Your task to perform on an android device: What's on my calendar today? Image 0: 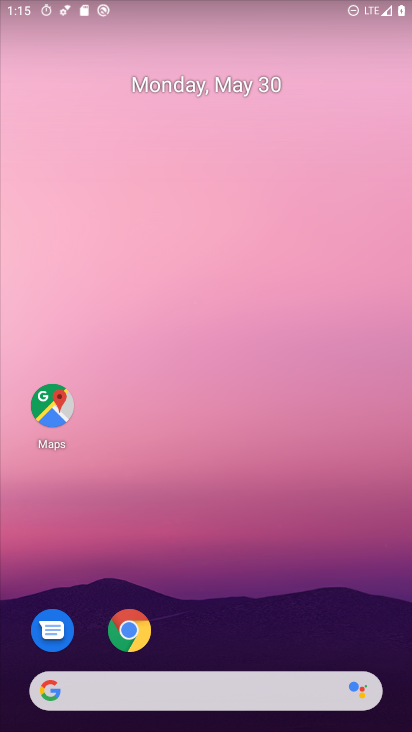
Step 0: drag from (295, 724) to (254, 226)
Your task to perform on an android device: What's on my calendar today? Image 1: 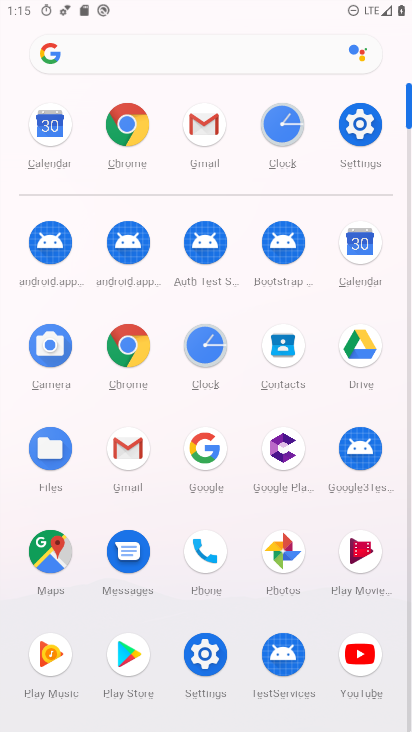
Step 1: click (359, 247)
Your task to perform on an android device: What's on my calendar today? Image 2: 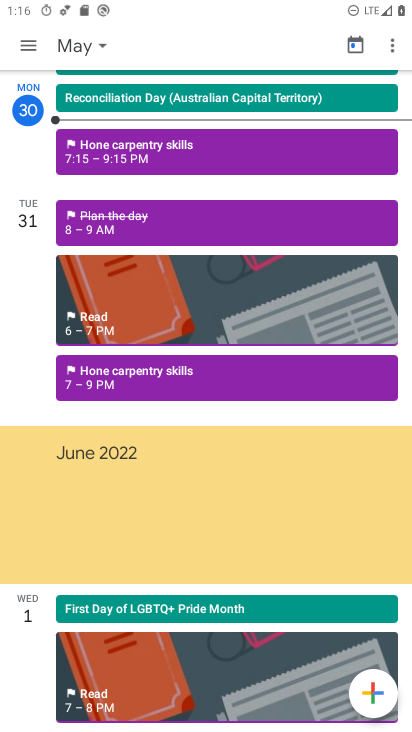
Step 2: task complete